Your task to perform on an android device: open app "Etsy: Buy & Sell Unique Items" Image 0: 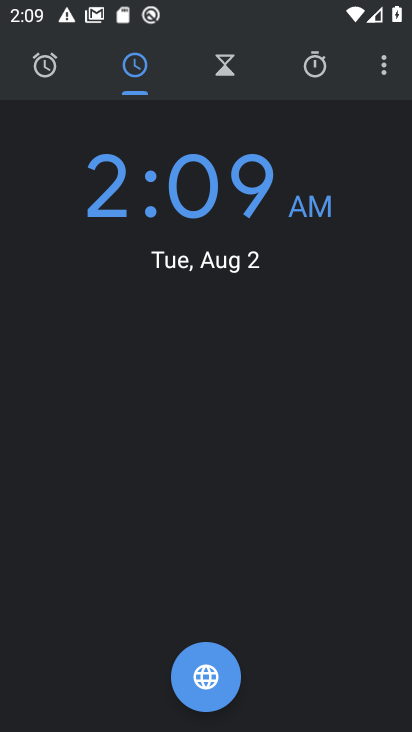
Step 0: press home button
Your task to perform on an android device: open app "Etsy: Buy & Sell Unique Items" Image 1: 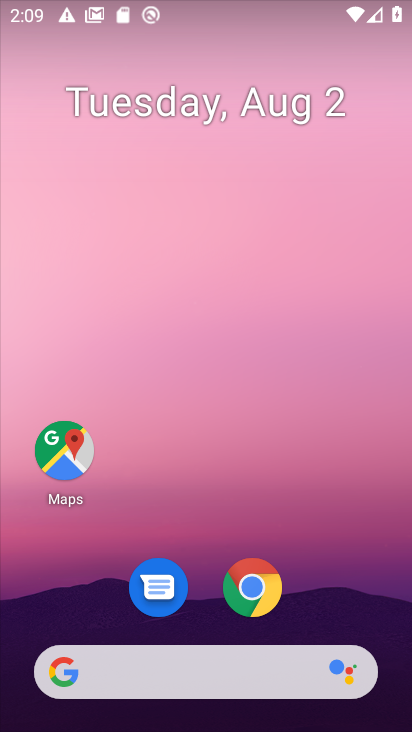
Step 1: drag from (243, 256) to (250, 215)
Your task to perform on an android device: open app "Etsy: Buy & Sell Unique Items" Image 2: 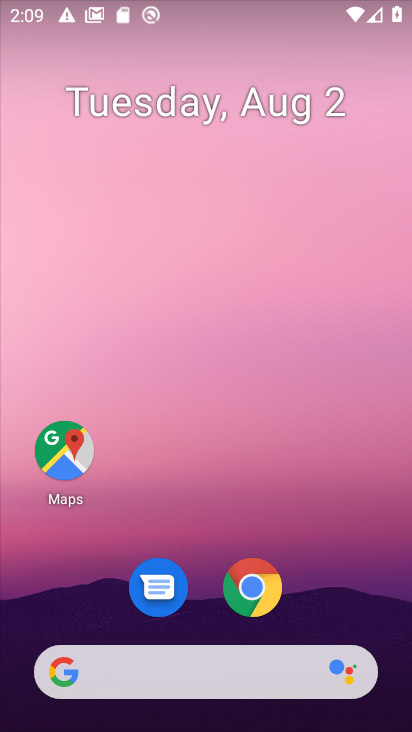
Step 2: drag from (202, 536) to (240, 172)
Your task to perform on an android device: open app "Etsy: Buy & Sell Unique Items" Image 3: 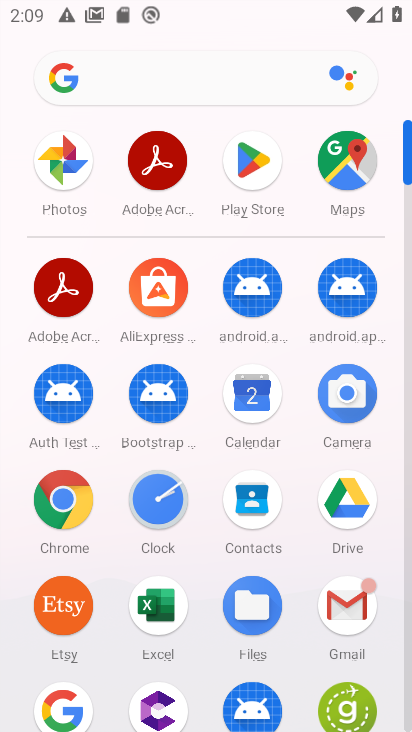
Step 3: click (250, 161)
Your task to perform on an android device: open app "Etsy: Buy & Sell Unique Items" Image 4: 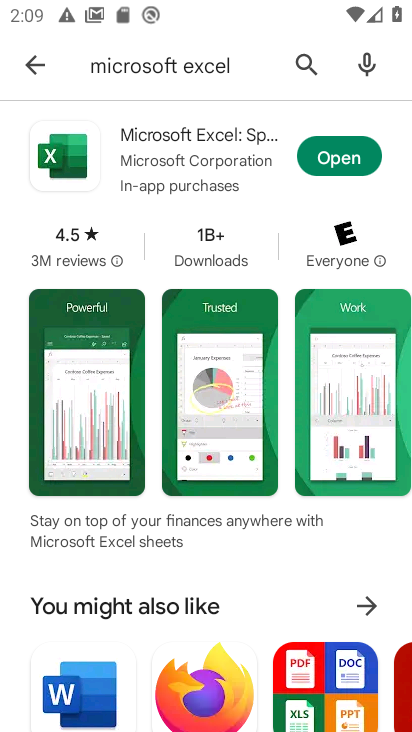
Step 4: click (299, 69)
Your task to perform on an android device: open app "Etsy: Buy & Sell Unique Items" Image 5: 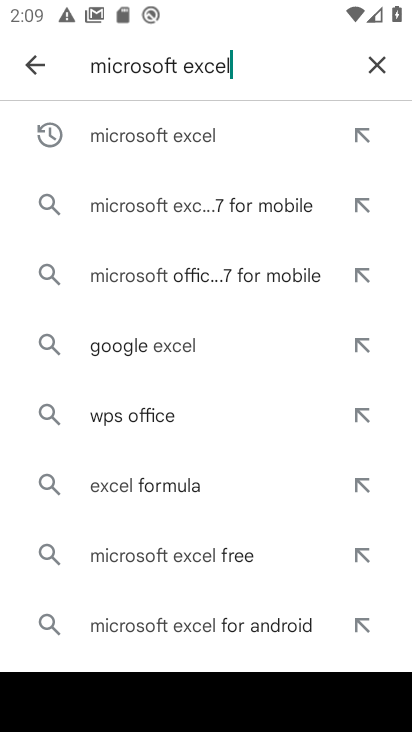
Step 5: click (378, 66)
Your task to perform on an android device: open app "Etsy: Buy & Sell Unique Items" Image 6: 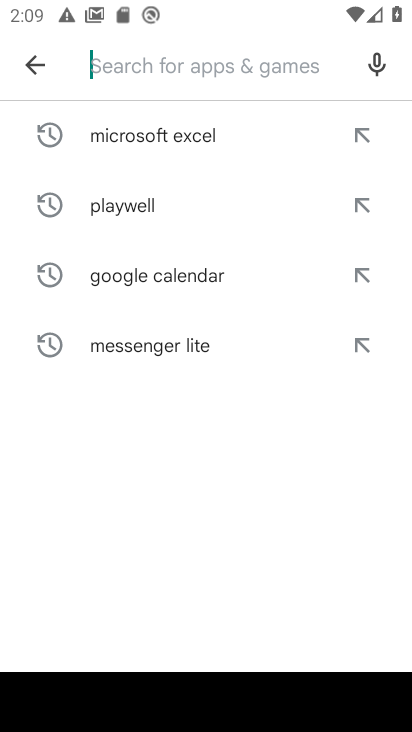
Step 6: type "Etsy: Buy & Sell Unique Items"
Your task to perform on an android device: open app "Etsy: Buy & Sell Unique Items" Image 7: 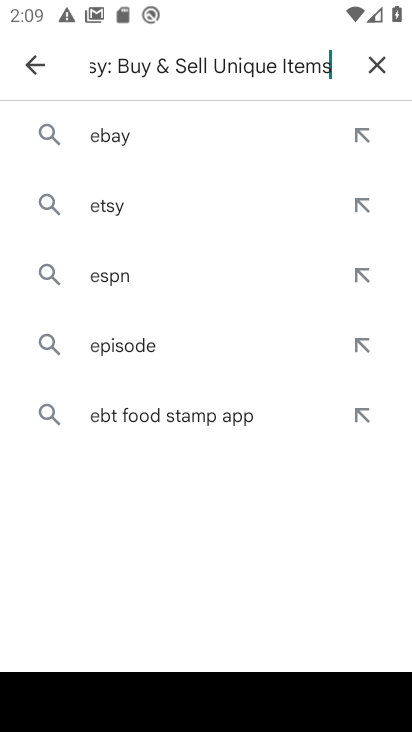
Step 7: type ""
Your task to perform on an android device: open app "Etsy: Buy & Sell Unique Items" Image 8: 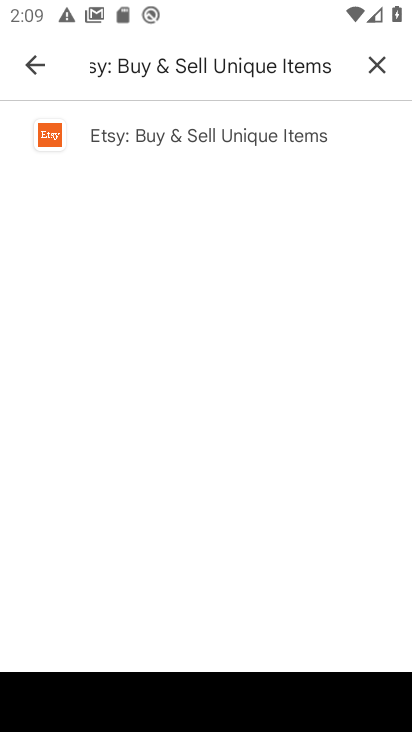
Step 8: click (163, 141)
Your task to perform on an android device: open app "Etsy: Buy & Sell Unique Items" Image 9: 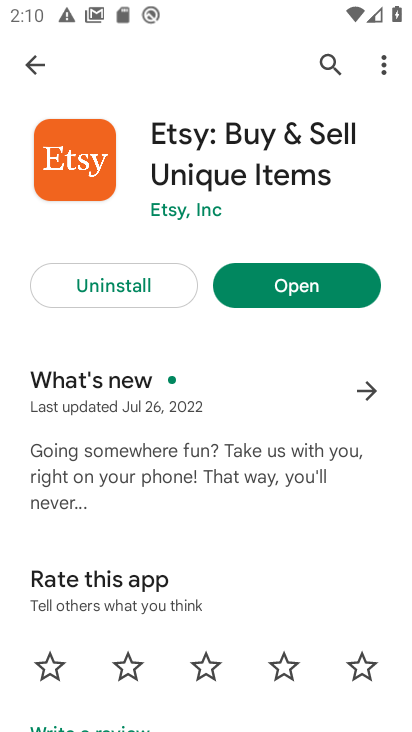
Step 9: click (337, 281)
Your task to perform on an android device: open app "Etsy: Buy & Sell Unique Items" Image 10: 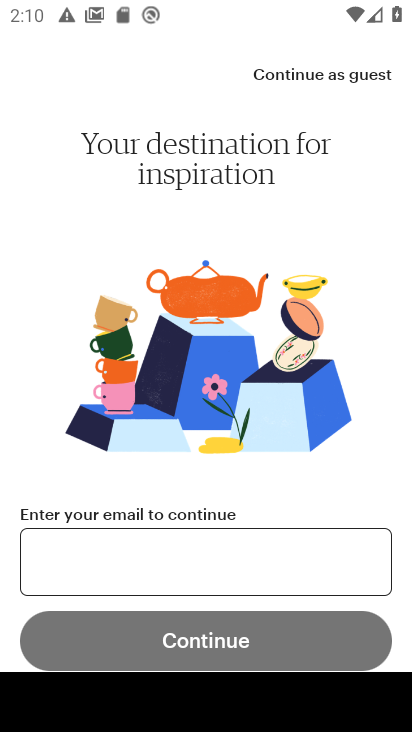
Step 10: task complete